Your task to perform on an android device: Go to wifi settings Image 0: 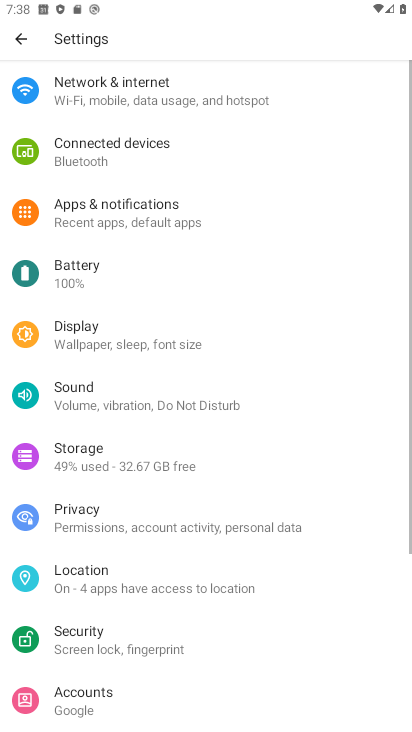
Step 0: press home button
Your task to perform on an android device: Go to wifi settings Image 1: 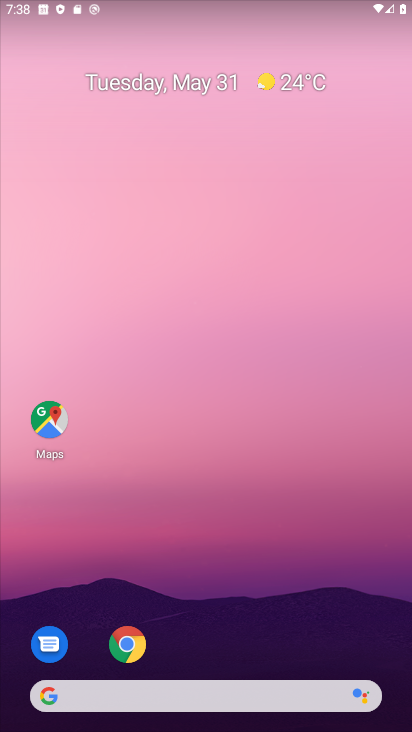
Step 1: drag from (302, 630) to (320, 260)
Your task to perform on an android device: Go to wifi settings Image 2: 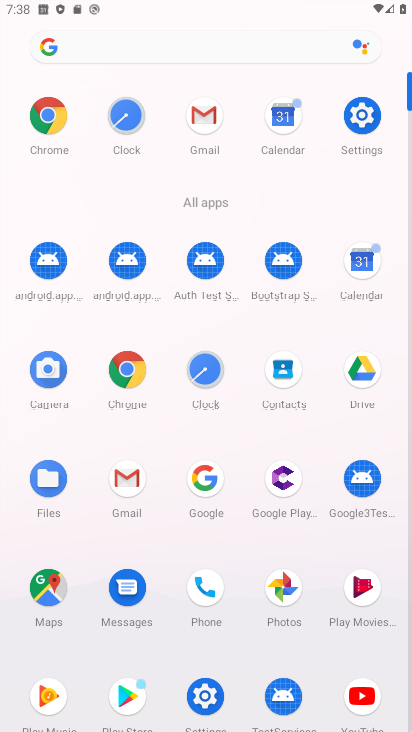
Step 2: click (207, 684)
Your task to perform on an android device: Go to wifi settings Image 3: 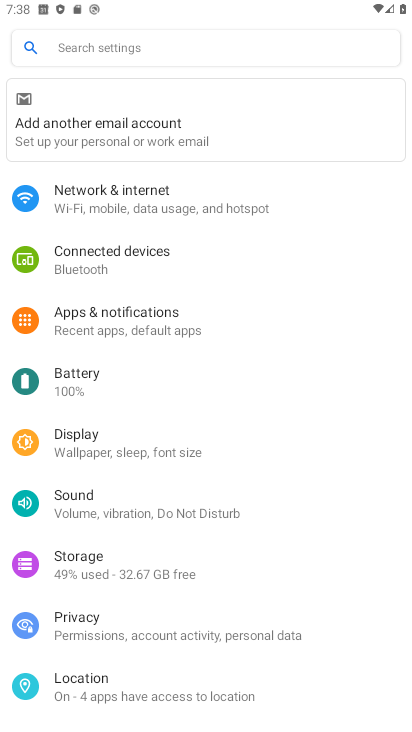
Step 3: click (181, 206)
Your task to perform on an android device: Go to wifi settings Image 4: 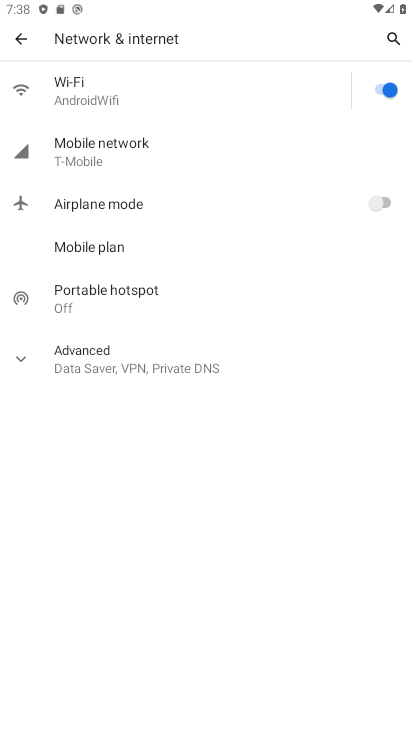
Step 4: click (147, 96)
Your task to perform on an android device: Go to wifi settings Image 5: 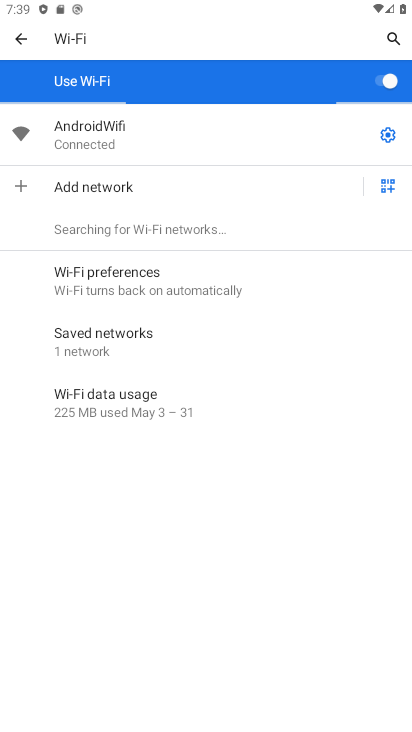
Step 5: click (405, 130)
Your task to perform on an android device: Go to wifi settings Image 6: 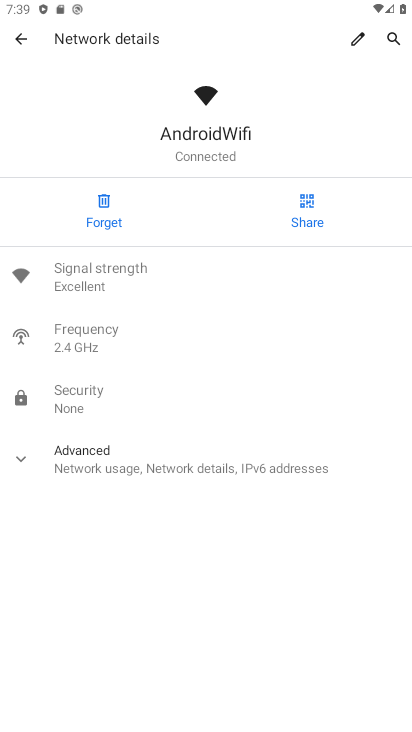
Step 6: task complete